Your task to perform on an android device: toggle notifications settings in the gmail app Image 0: 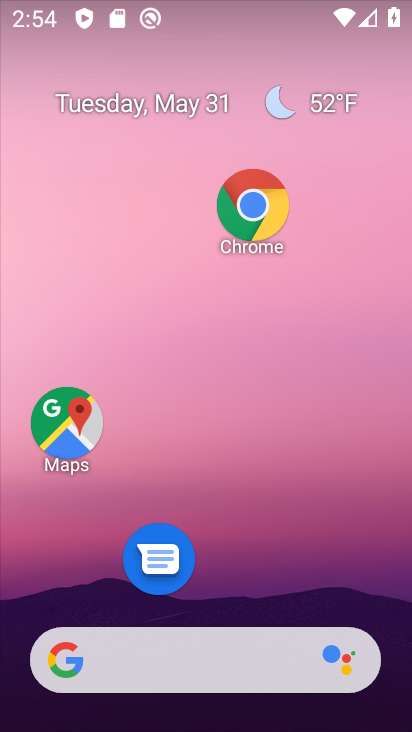
Step 0: drag from (232, 595) to (211, 201)
Your task to perform on an android device: toggle notifications settings in the gmail app Image 1: 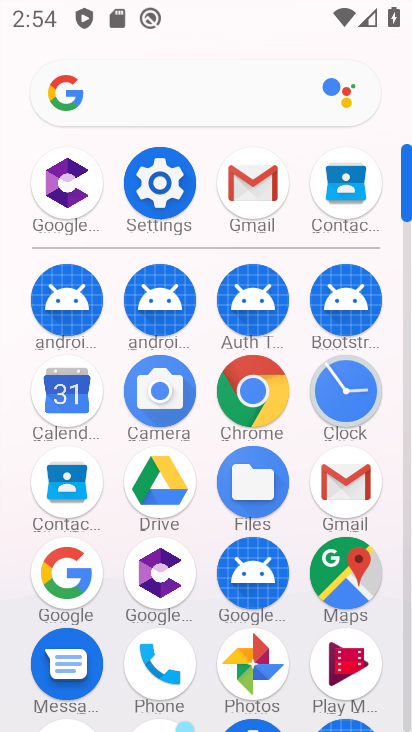
Step 1: click (236, 189)
Your task to perform on an android device: toggle notifications settings in the gmail app Image 2: 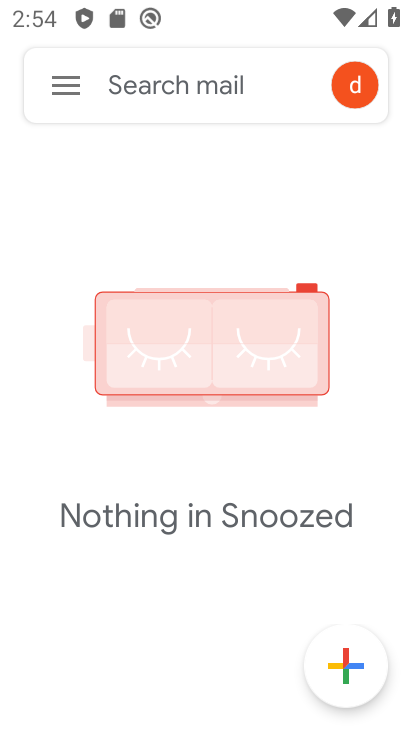
Step 2: click (69, 93)
Your task to perform on an android device: toggle notifications settings in the gmail app Image 3: 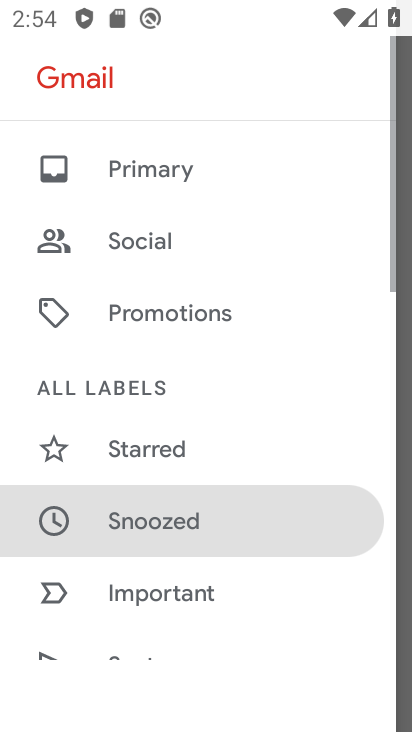
Step 3: drag from (123, 592) to (193, 217)
Your task to perform on an android device: toggle notifications settings in the gmail app Image 4: 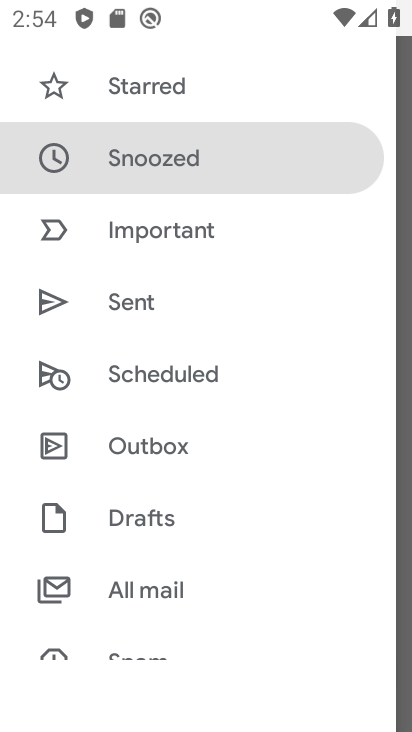
Step 4: drag from (157, 582) to (235, 272)
Your task to perform on an android device: toggle notifications settings in the gmail app Image 5: 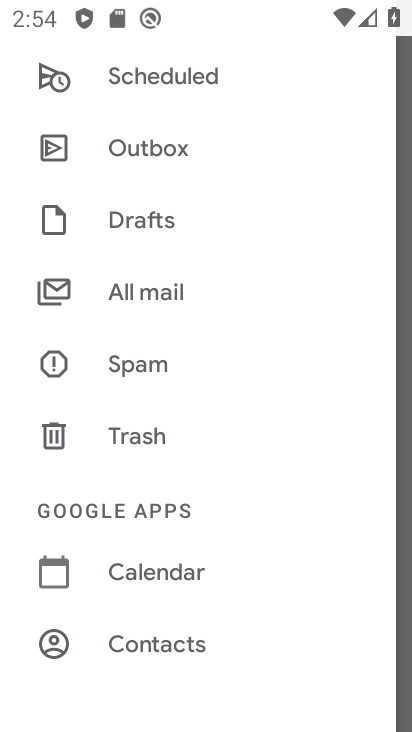
Step 5: drag from (167, 544) to (228, 270)
Your task to perform on an android device: toggle notifications settings in the gmail app Image 6: 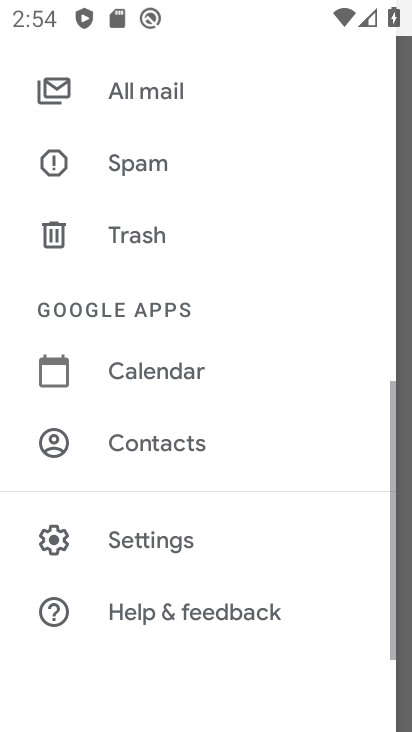
Step 6: click (152, 548)
Your task to perform on an android device: toggle notifications settings in the gmail app Image 7: 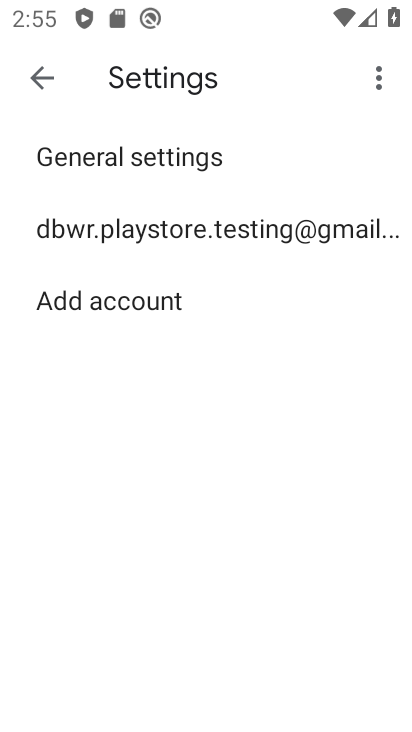
Step 7: click (266, 230)
Your task to perform on an android device: toggle notifications settings in the gmail app Image 8: 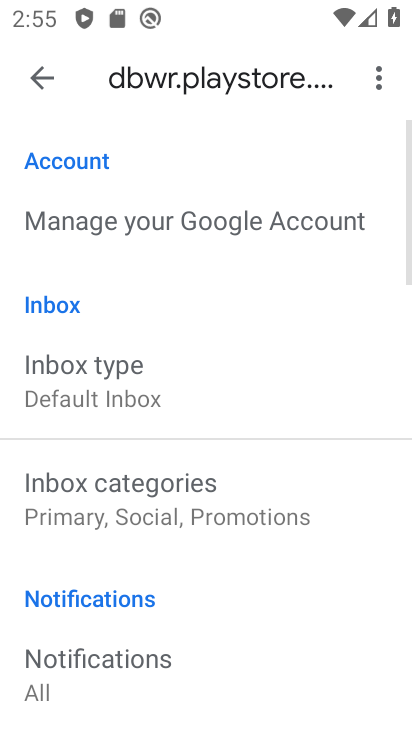
Step 8: drag from (223, 589) to (249, 358)
Your task to perform on an android device: toggle notifications settings in the gmail app Image 9: 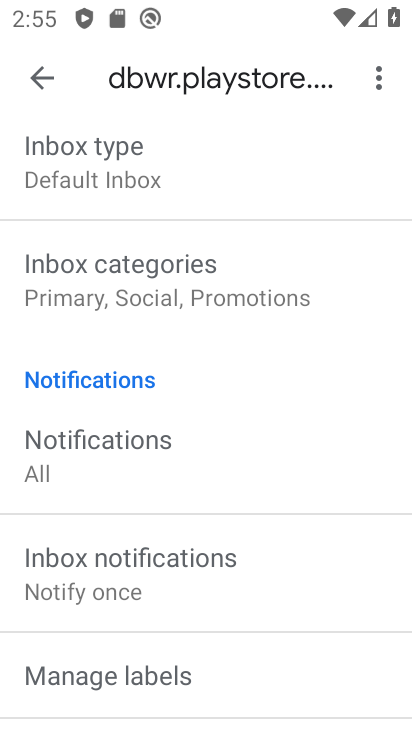
Step 9: drag from (208, 617) to (252, 389)
Your task to perform on an android device: toggle notifications settings in the gmail app Image 10: 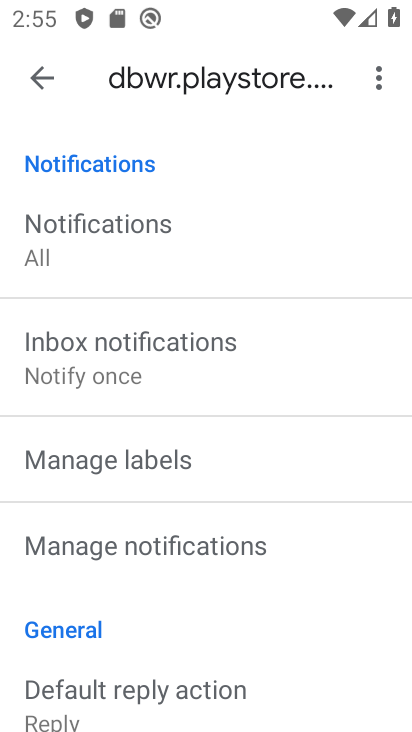
Step 10: click (218, 543)
Your task to perform on an android device: toggle notifications settings in the gmail app Image 11: 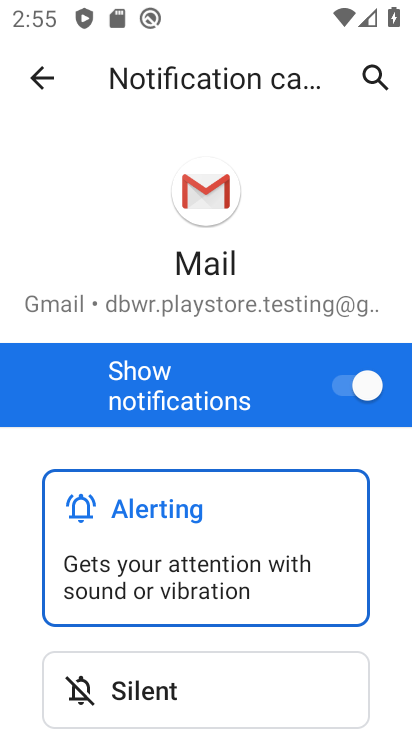
Step 11: click (336, 370)
Your task to perform on an android device: toggle notifications settings in the gmail app Image 12: 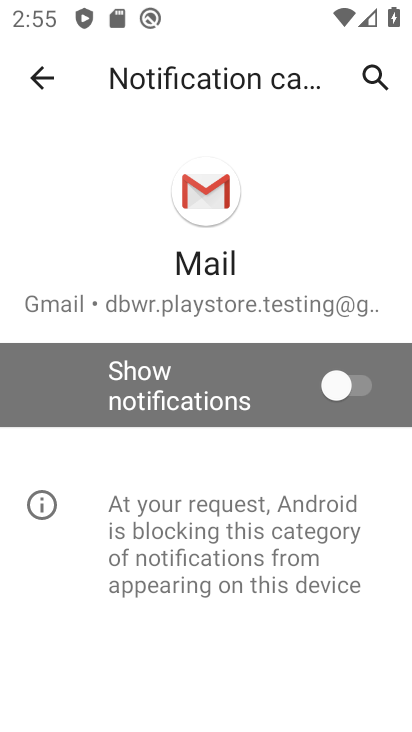
Step 12: task complete